Your task to perform on an android device: Go to internet settings Image 0: 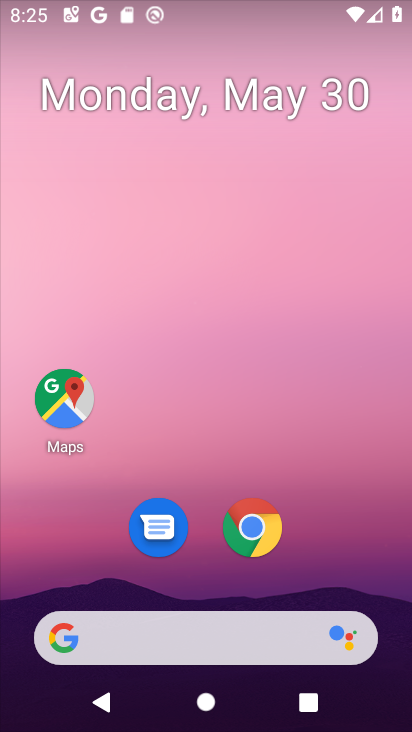
Step 0: drag from (314, 587) to (276, 271)
Your task to perform on an android device: Go to internet settings Image 1: 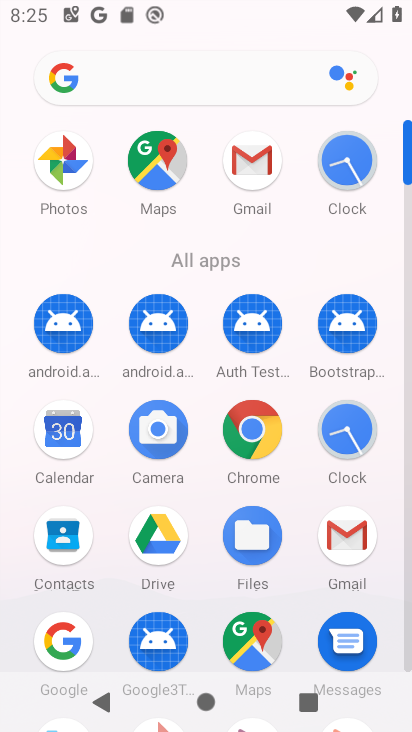
Step 1: drag from (216, 531) to (206, 236)
Your task to perform on an android device: Go to internet settings Image 2: 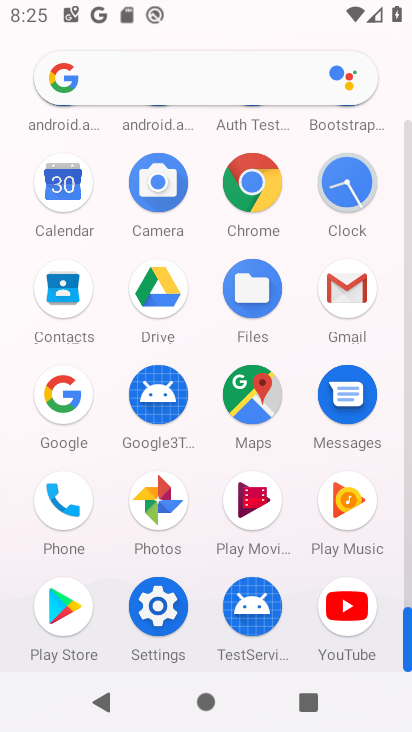
Step 2: click (146, 615)
Your task to perform on an android device: Go to internet settings Image 3: 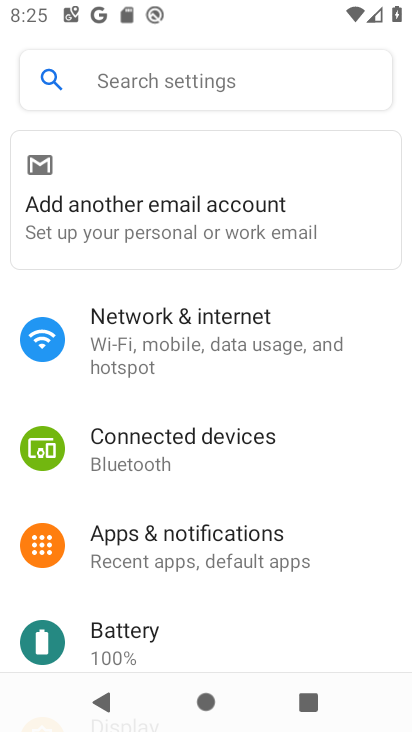
Step 3: click (223, 197)
Your task to perform on an android device: Go to internet settings Image 4: 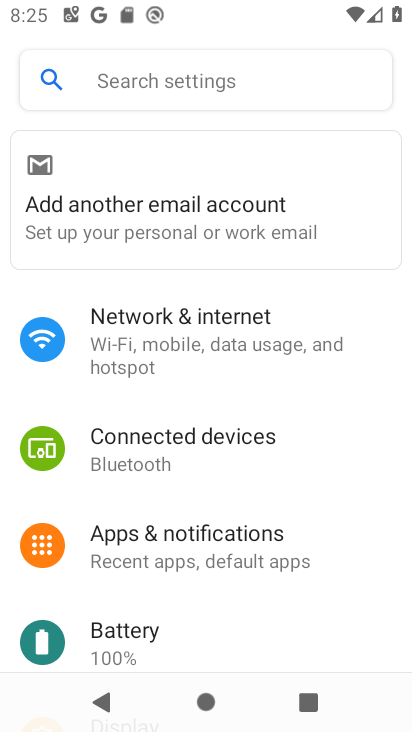
Step 4: click (246, 325)
Your task to perform on an android device: Go to internet settings Image 5: 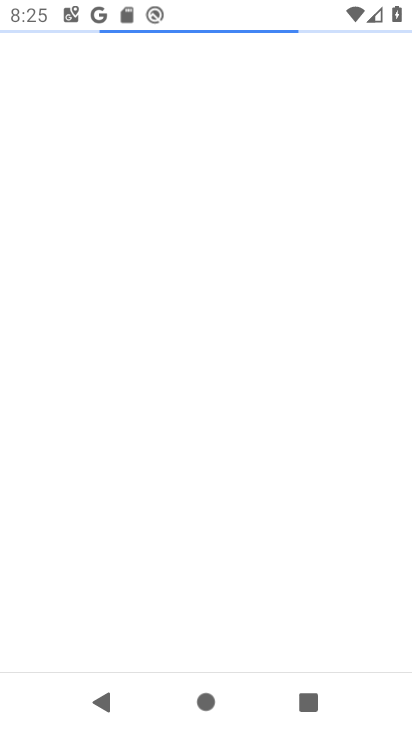
Step 5: click (87, 704)
Your task to perform on an android device: Go to internet settings Image 6: 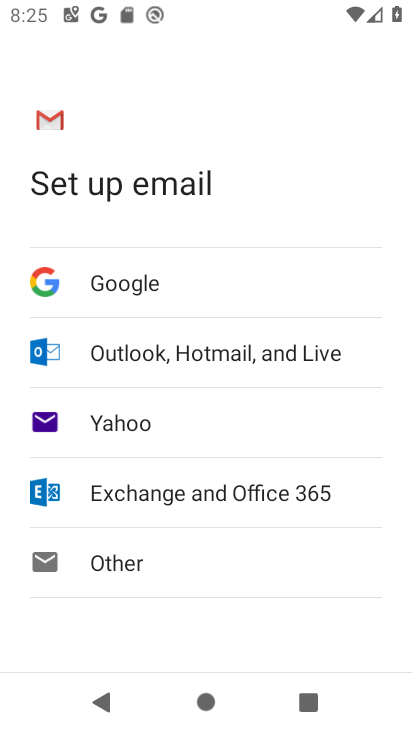
Step 6: click (87, 704)
Your task to perform on an android device: Go to internet settings Image 7: 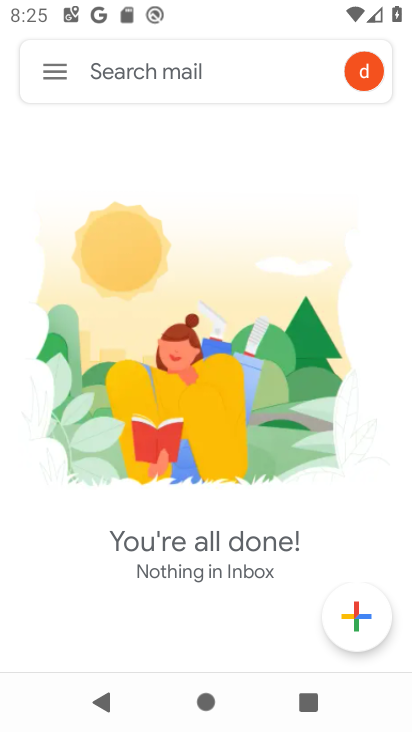
Step 7: click (54, 67)
Your task to perform on an android device: Go to internet settings Image 8: 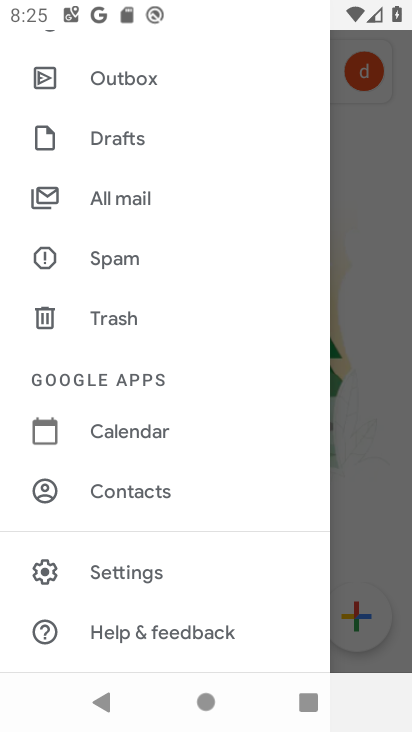
Step 8: click (162, 579)
Your task to perform on an android device: Go to internet settings Image 9: 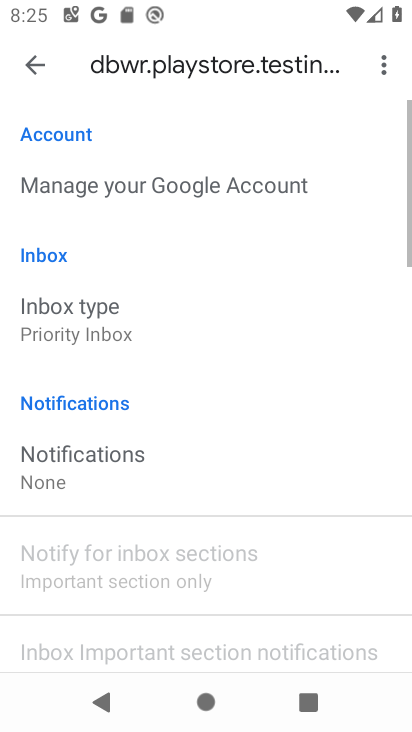
Step 9: press home button
Your task to perform on an android device: Go to internet settings Image 10: 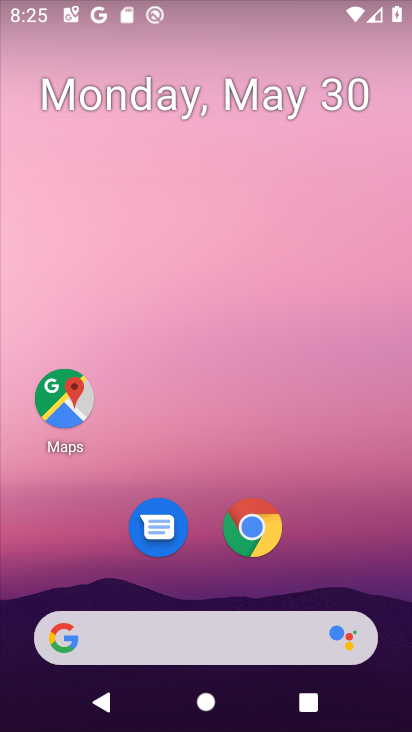
Step 10: drag from (228, 575) to (210, 201)
Your task to perform on an android device: Go to internet settings Image 11: 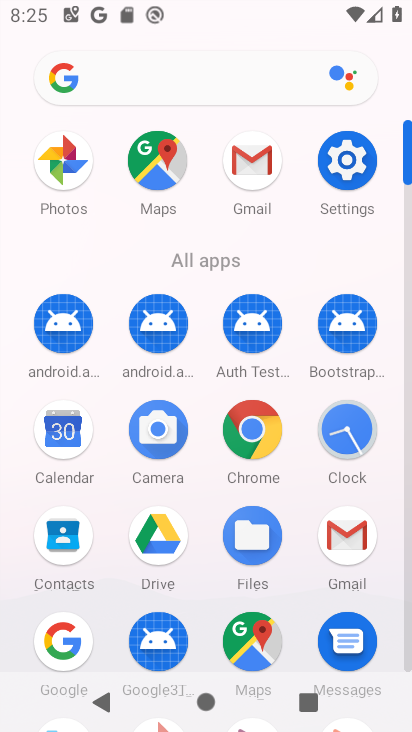
Step 11: click (364, 153)
Your task to perform on an android device: Go to internet settings Image 12: 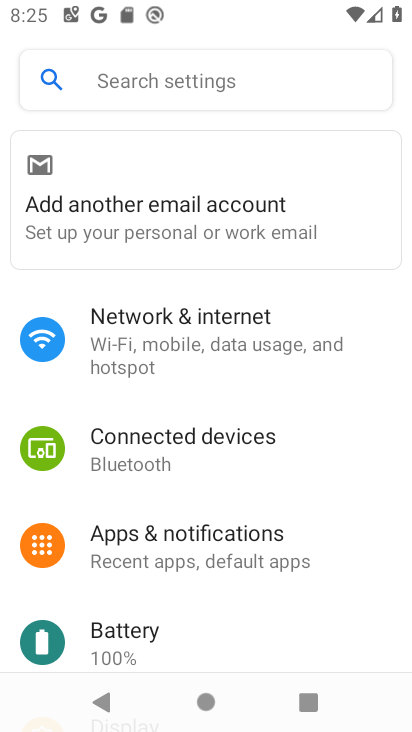
Step 12: click (166, 342)
Your task to perform on an android device: Go to internet settings Image 13: 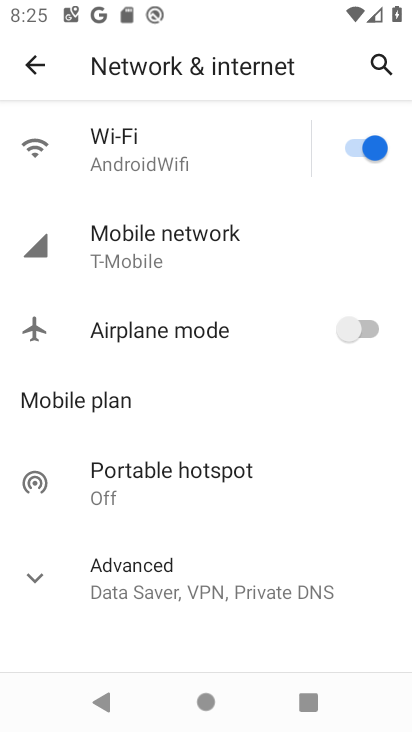
Step 13: task complete